Your task to perform on an android device: check data usage Image 0: 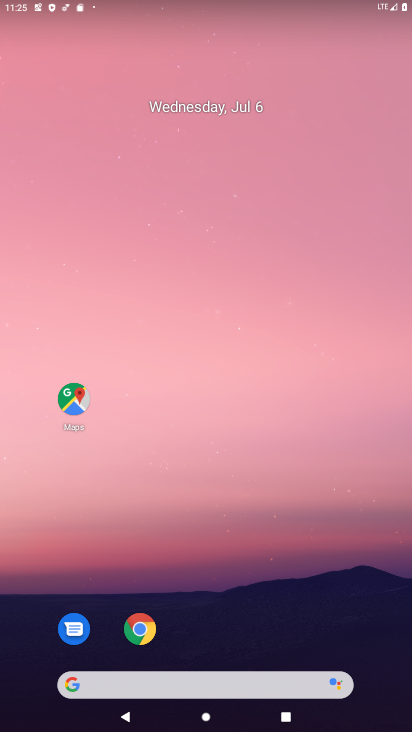
Step 0: drag from (227, 550) to (201, 159)
Your task to perform on an android device: check data usage Image 1: 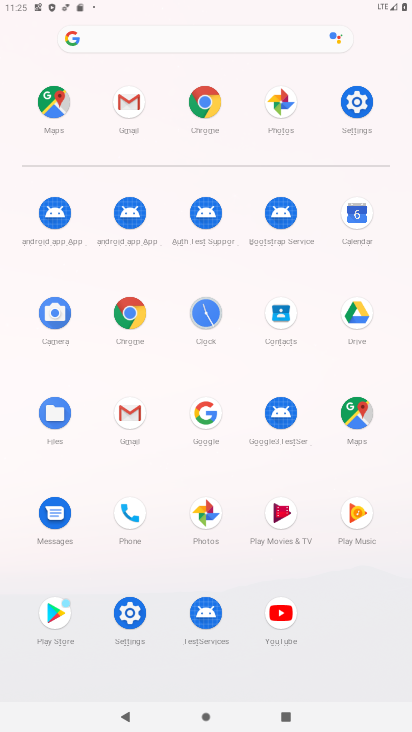
Step 1: click (361, 79)
Your task to perform on an android device: check data usage Image 2: 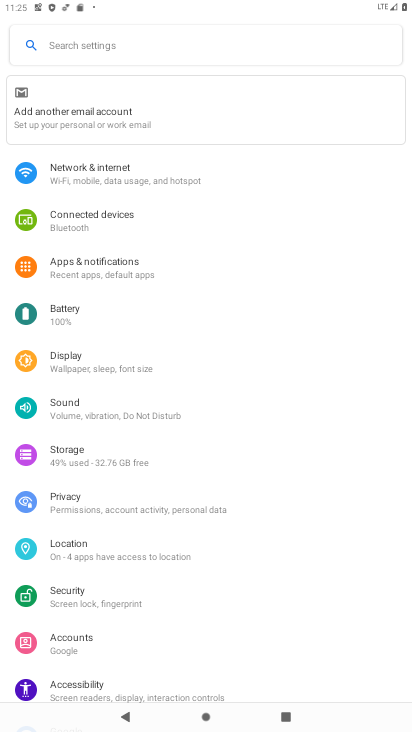
Step 2: click (165, 175)
Your task to perform on an android device: check data usage Image 3: 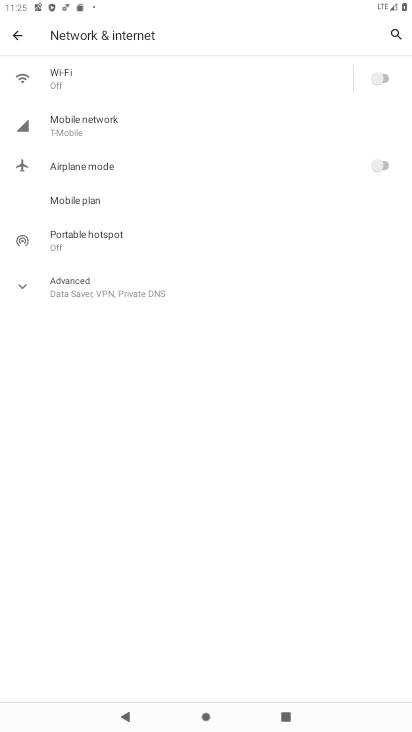
Step 3: click (126, 128)
Your task to perform on an android device: check data usage Image 4: 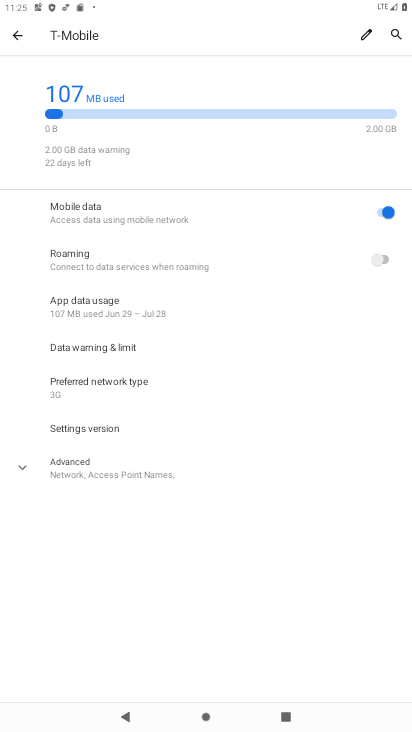
Step 4: click (128, 298)
Your task to perform on an android device: check data usage Image 5: 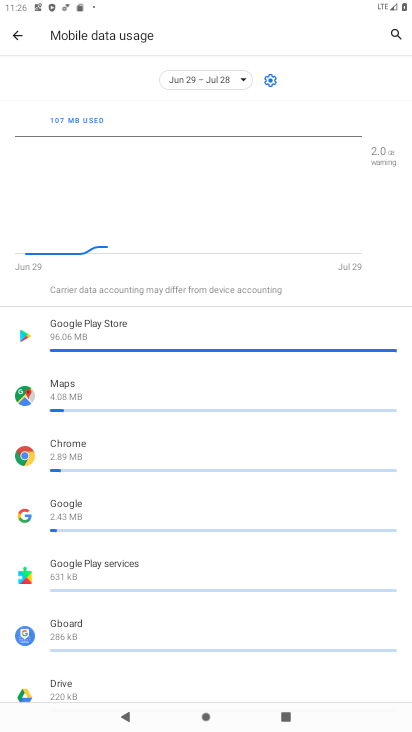
Step 5: task complete